Your task to perform on an android device: toggle airplane mode Image 0: 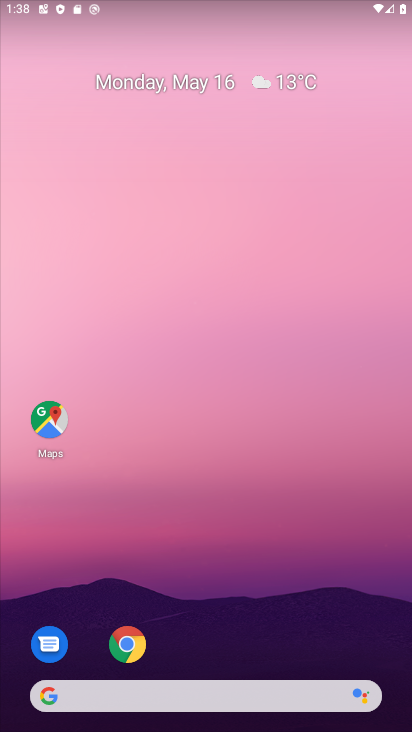
Step 0: drag from (244, 629) to (316, 131)
Your task to perform on an android device: toggle airplane mode Image 1: 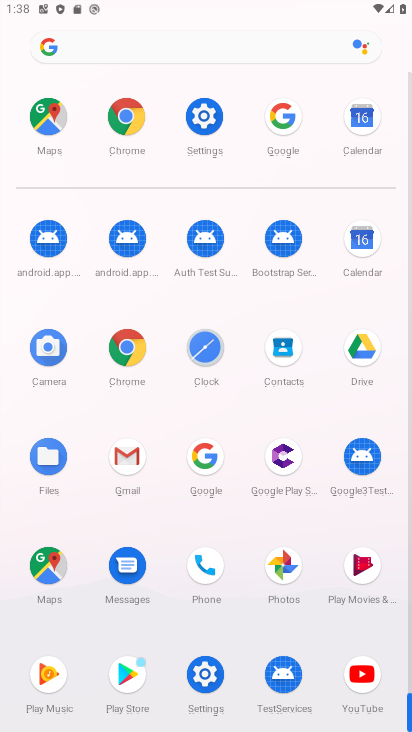
Step 1: click (216, 143)
Your task to perform on an android device: toggle airplane mode Image 2: 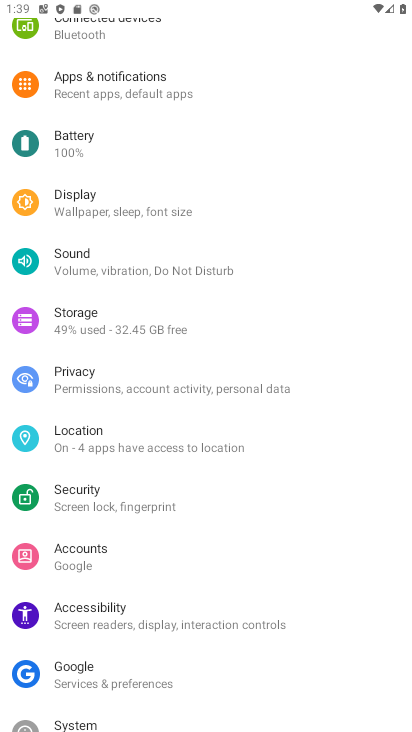
Step 2: drag from (145, 542) to (188, 731)
Your task to perform on an android device: toggle airplane mode Image 3: 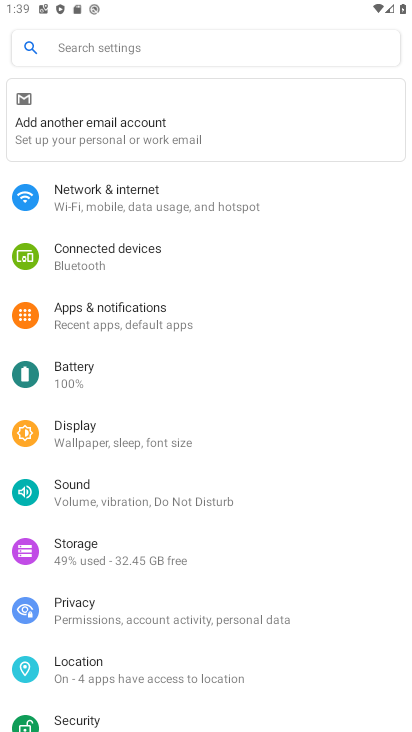
Step 3: click (201, 211)
Your task to perform on an android device: toggle airplane mode Image 4: 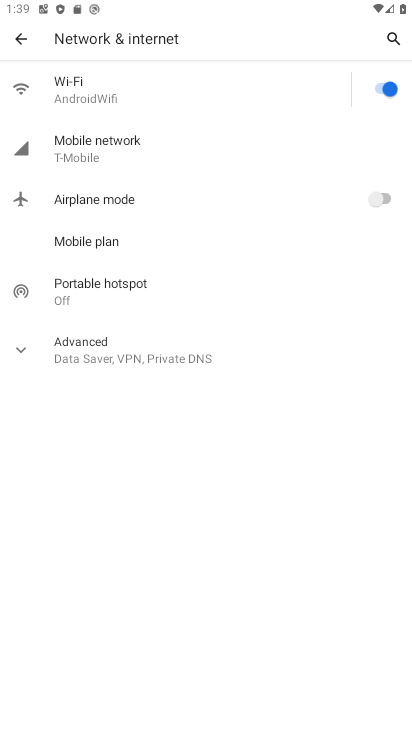
Step 4: click (377, 200)
Your task to perform on an android device: toggle airplane mode Image 5: 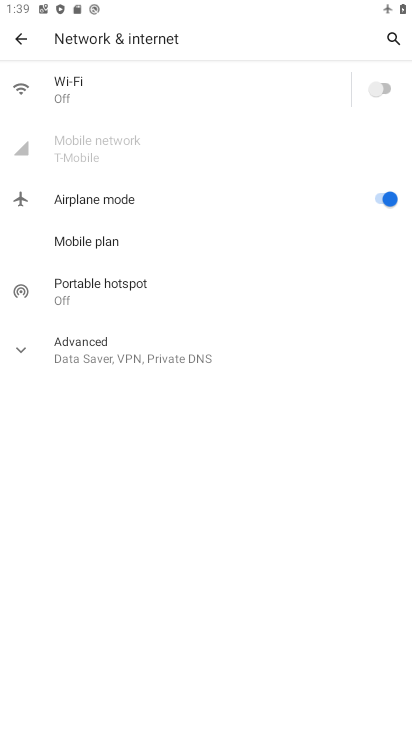
Step 5: task complete